Your task to perform on an android device: turn on wifi Image 0: 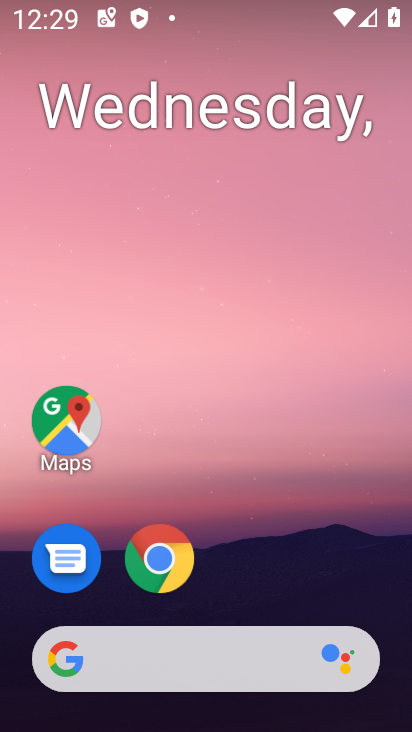
Step 0: drag from (121, 32) to (120, 542)
Your task to perform on an android device: turn on wifi Image 1: 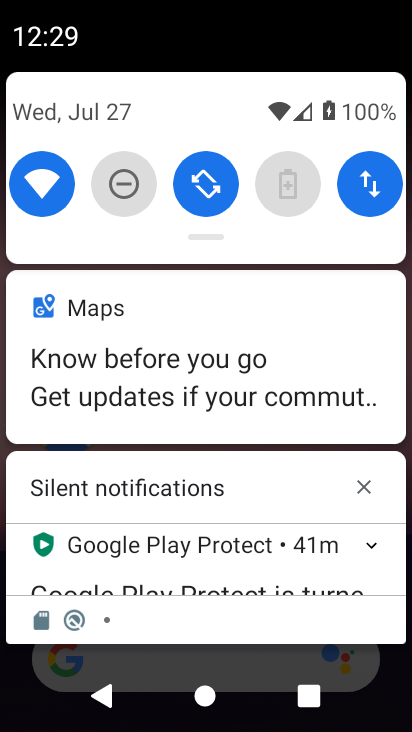
Step 1: task complete